Your task to perform on an android device: turn pop-ups off in chrome Image 0: 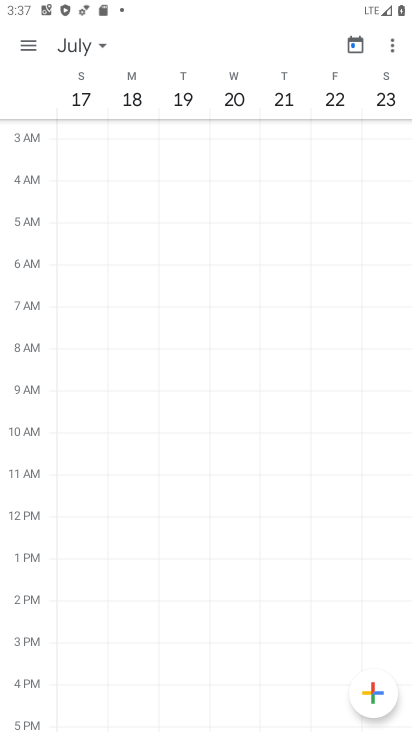
Step 0: press home button
Your task to perform on an android device: turn pop-ups off in chrome Image 1: 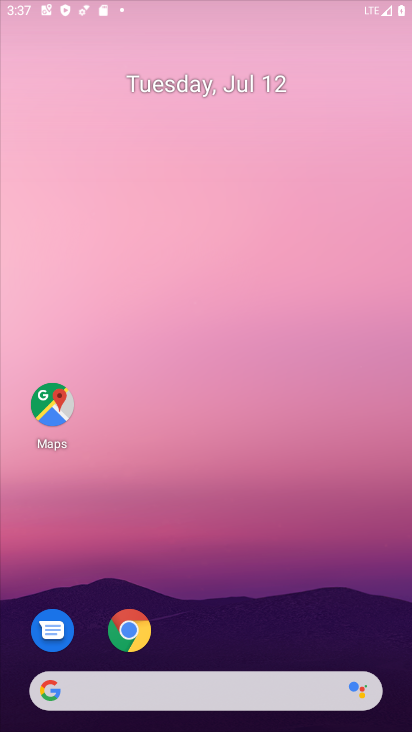
Step 1: drag from (239, 675) to (316, 0)
Your task to perform on an android device: turn pop-ups off in chrome Image 2: 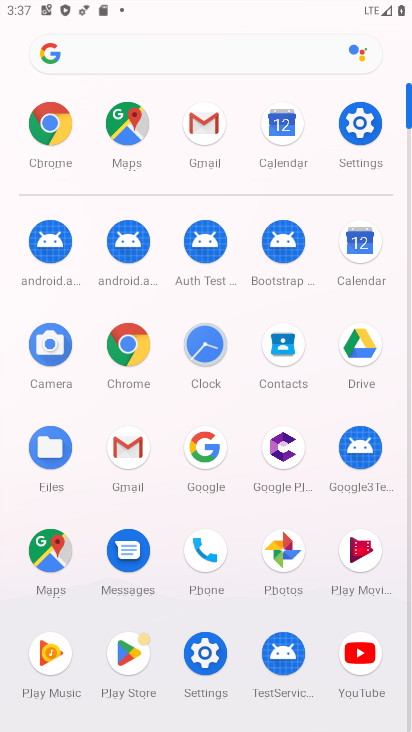
Step 2: click (135, 350)
Your task to perform on an android device: turn pop-ups off in chrome Image 3: 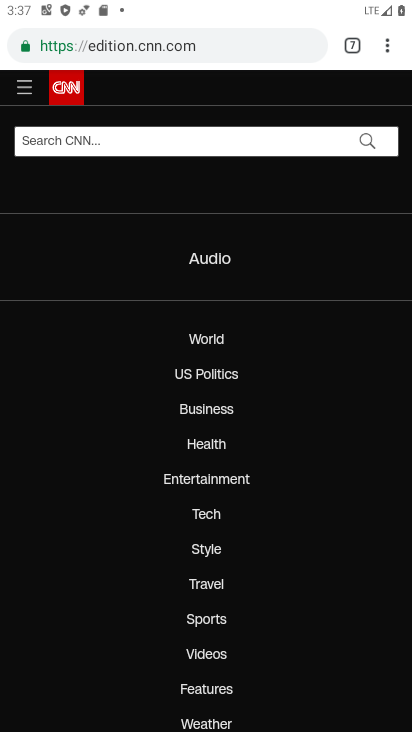
Step 3: drag from (386, 41) to (233, 563)
Your task to perform on an android device: turn pop-ups off in chrome Image 4: 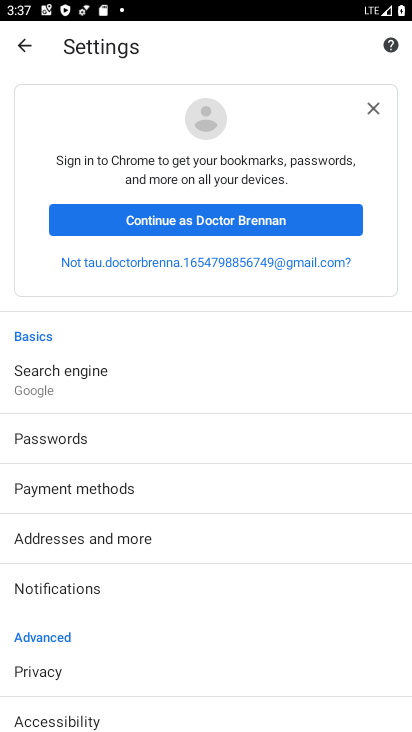
Step 4: drag from (145, 634) to (164, 289)
Your task to perform on an android device: turn pop-ups off in chrome Image 5: 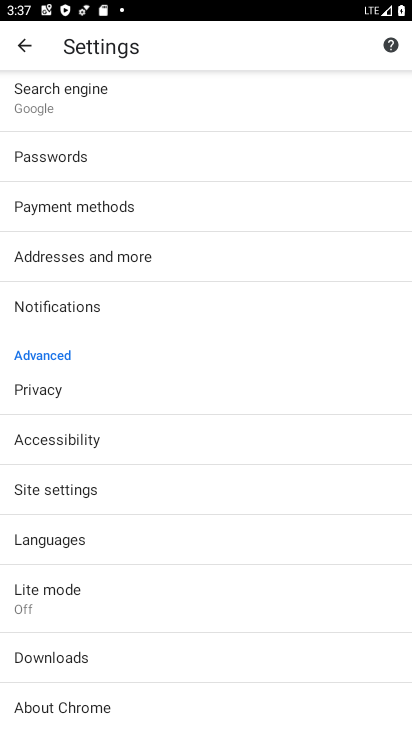
Step 5: click (80, 491)
Your task to perform on an android device: turn pop-ups off in chrome Image 6: 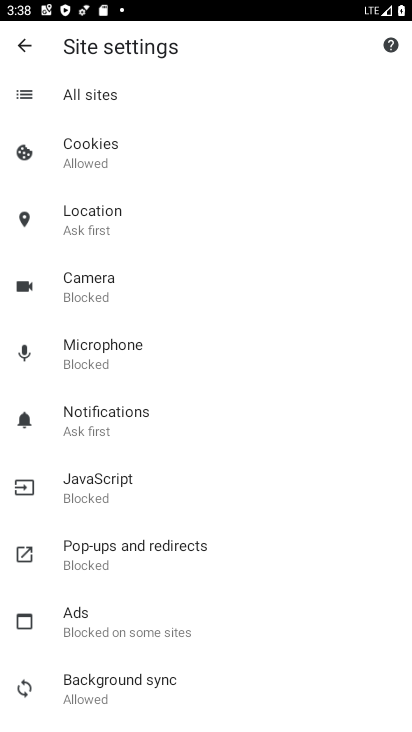
Step 6: click (133, 566)
Your task to perform on an android device: turn pop-ups off in chrome Image 7: 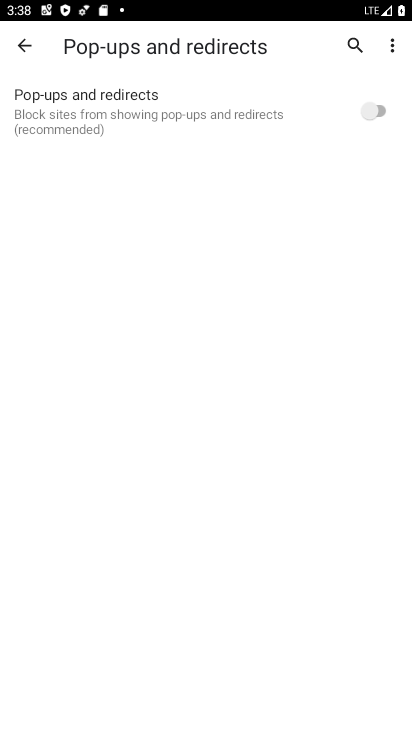
Step 7: task complete